Your task to perform on an android device: Open Chrome and go to settings Image 0: 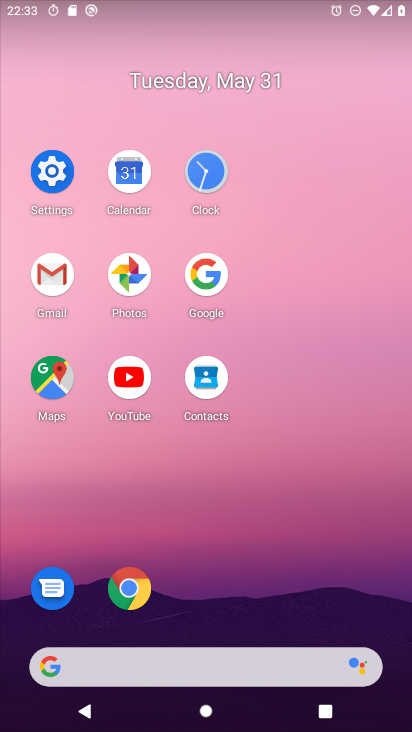
Step 0: click (139, 584)
Your task to perform on an android device: Open Chrome and go to settings Image 1: 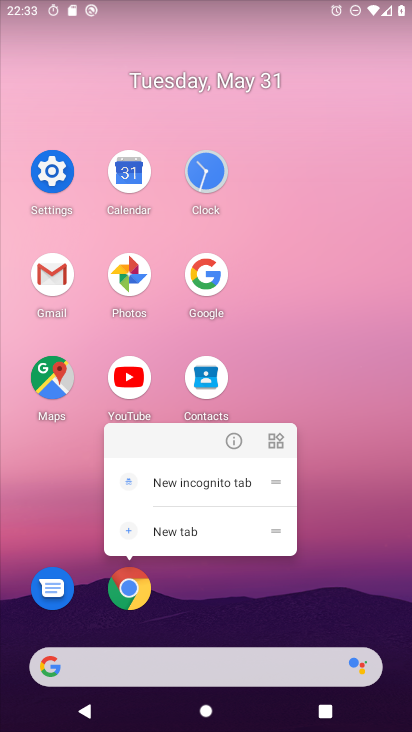
Step 1: click (139, 584)
Your task to perform on an android device: Open Chrome and go to settings Image 2: 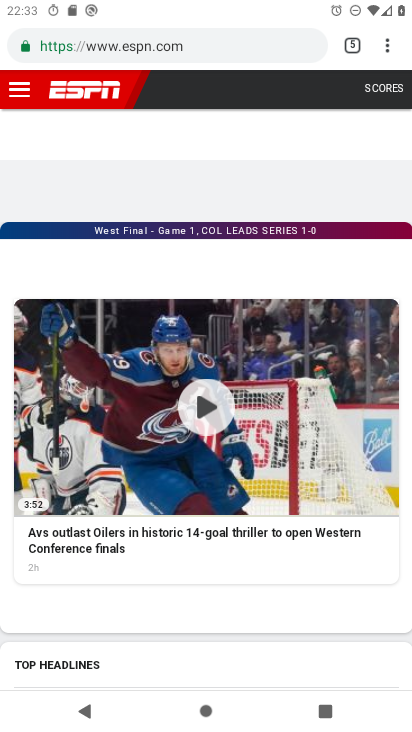
Step 2: click (395, 45)
Your task to perform on an android device: Open Chrome and go to settings Image 3: 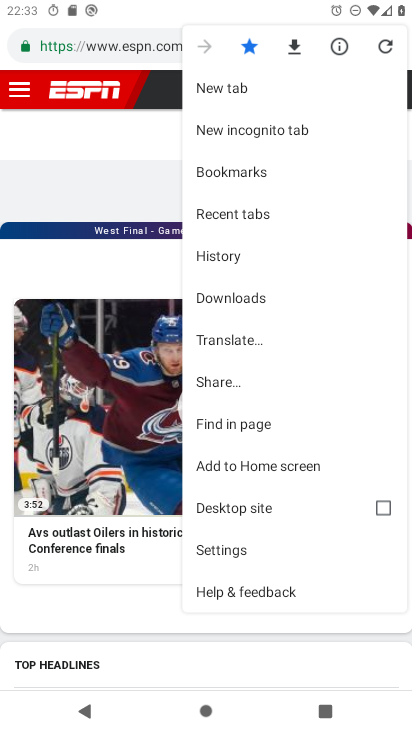
Step 3: click (243, 556)
Your task to perform on an android device: Open Chrome and go to settings Image 4: 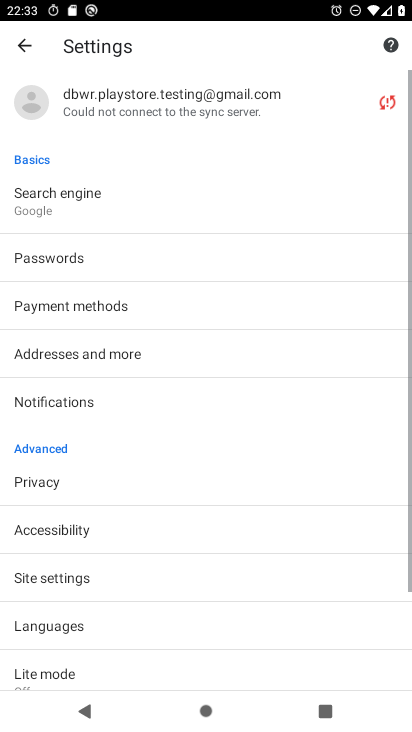
Step 4: task complete